Your task to perform on an android device: find photos in the google photos app Image 0: 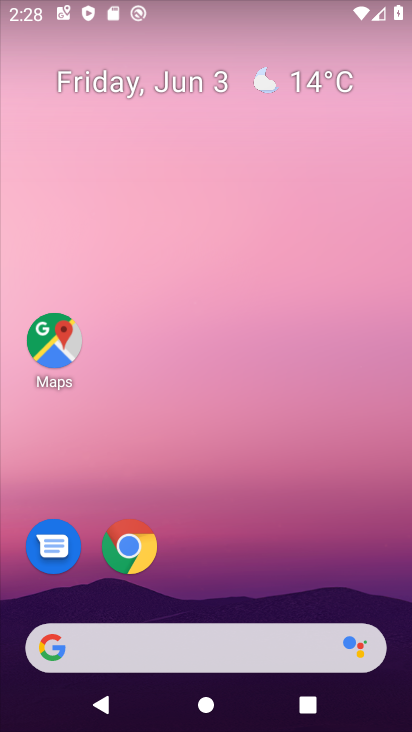
Step 0: drag from (312, 593) to (324, 143)
Your task to perform on an android device: find photos in the google photos app Image 1: 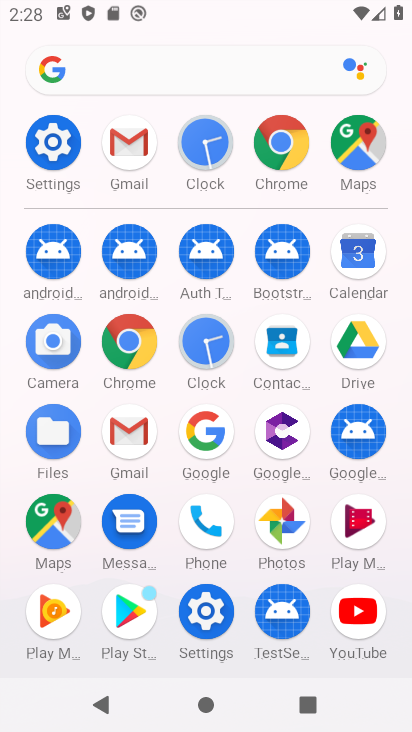
Step 1: click (286, 525)
Your task to perform on an android device: find photos in the google photos app Image 2: 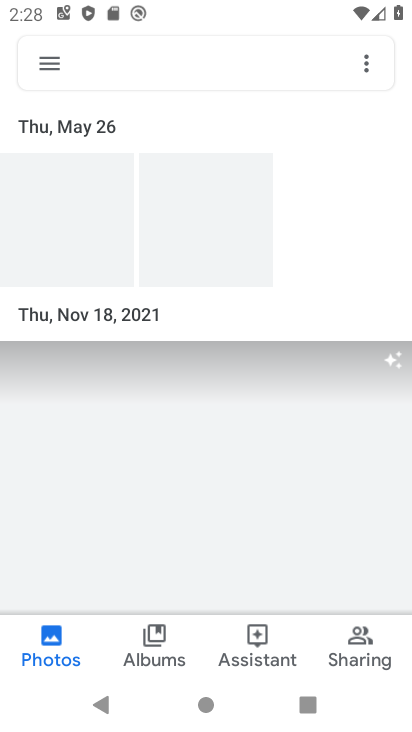
Step 2: click (43, 639)
Your task to perform on an android device: find photos in the google photos app Image 3: 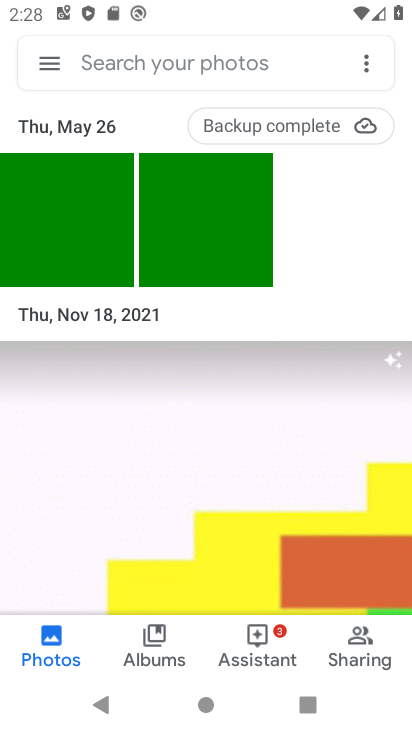
Step 3: task complete